Your task to perform on an android device: Open Reddit.com Image 0: 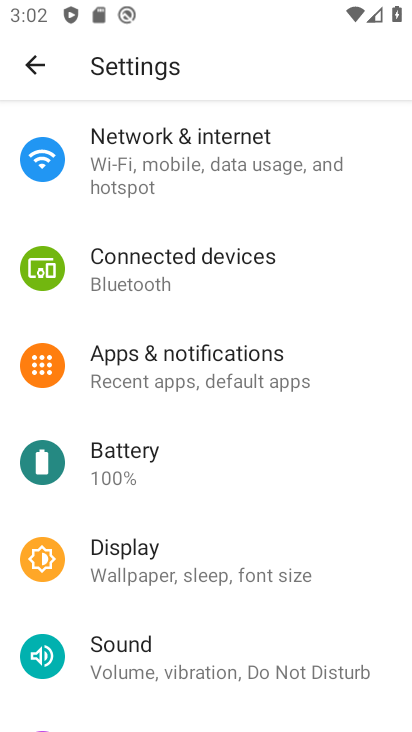
Step 0: press home button
Your task to perform on an android device: Open Reddit.com Image 1: 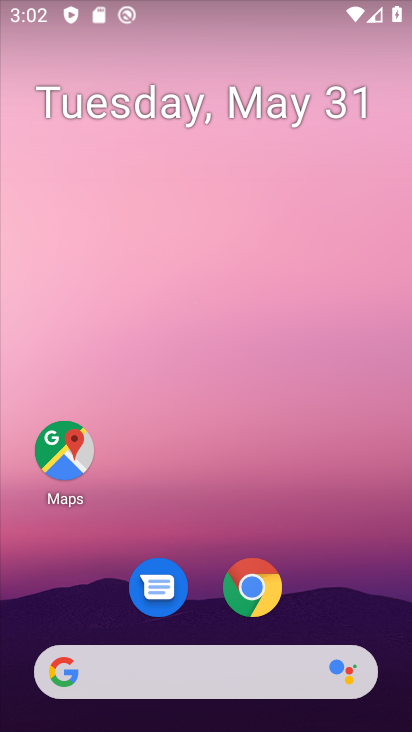
Step 1: click (248, 580)
Your task to perform on an android device: Open Reddit.com Image 2: 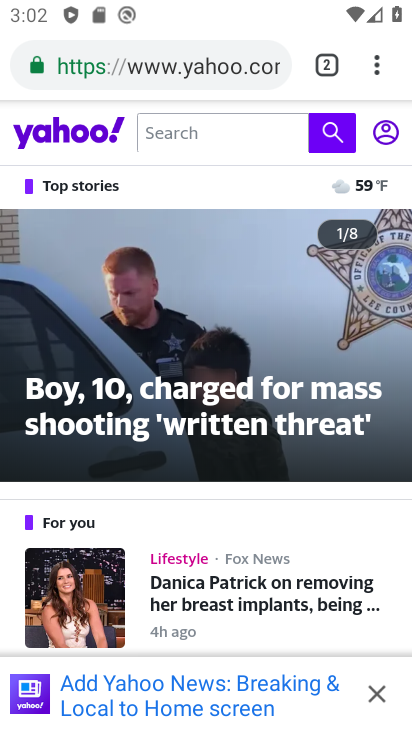
Step 2: click (178, 76)
Your task to perform on an android device: Open Reddit.com Image 3: 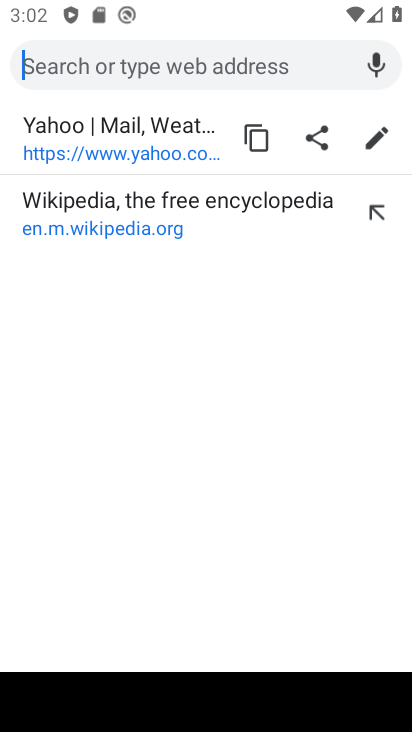
Step 3: type "Reddit.com"
Your task to perform on an android device: Open Reddit.com Image 4: 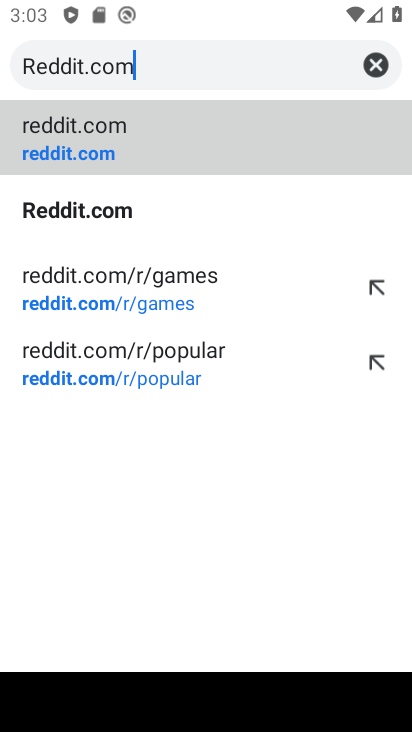
Step 4: click (75, 140)
Your task to perform on an android device: Open Reddit.com Image 5: 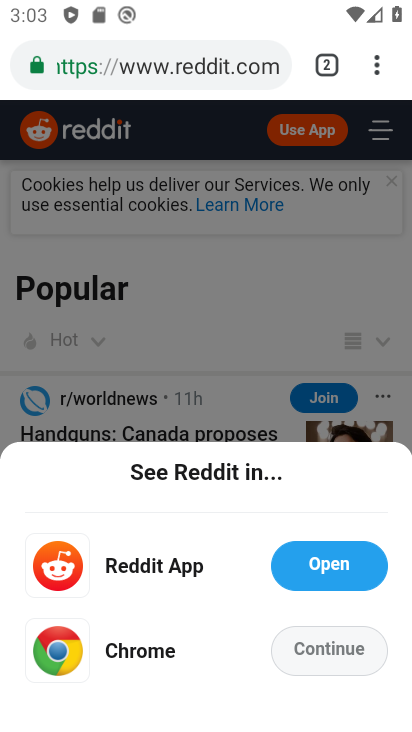
Step 5: task complete